Your task to perform on an android device: Do I have any events today? Image 0: 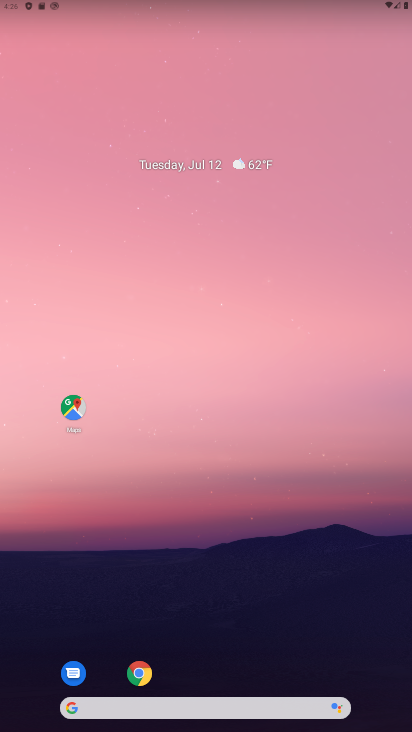
Step 0: drag from (208, 542) to (208, 217)
Your task to perform on an android device: Do I have any events today? Image 1: 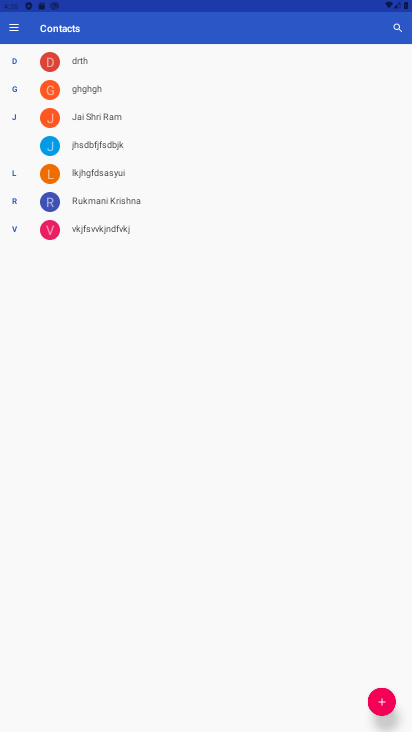
Step 1: press home button
Your task to perform on an android device: Do I have any events today? Image 2: 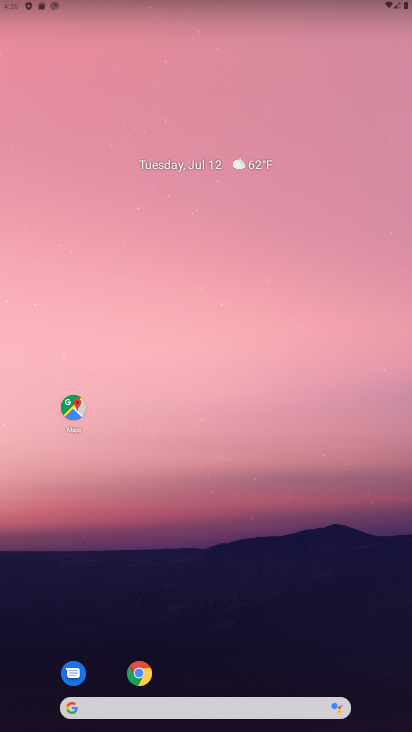
Step 2: drag from (226, 710) to (238, 203)
Your task to perform on an android device: Do I have any events today? Image 3: 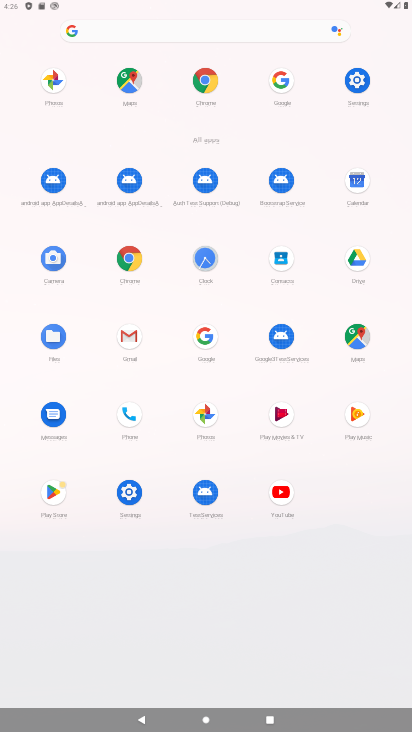
Step 3: click (360, 179)
Your task to perform on an android device: Do I have any events today? Image 4: 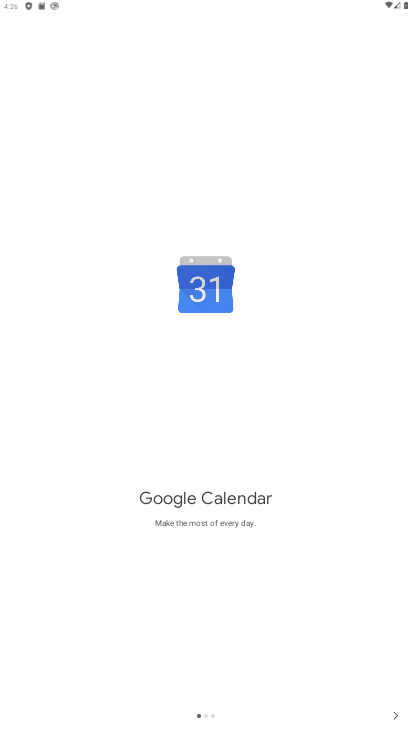
Step 4: click (397, 710)
Your task to perform on an android device: Do I have any events today? Image 5: 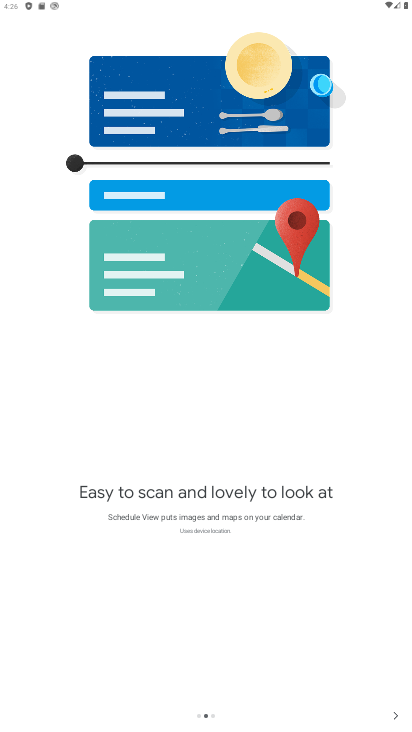
Step 5: click (391, 714)
Your task to perform on an android device: Do I have any events today? Image 6: 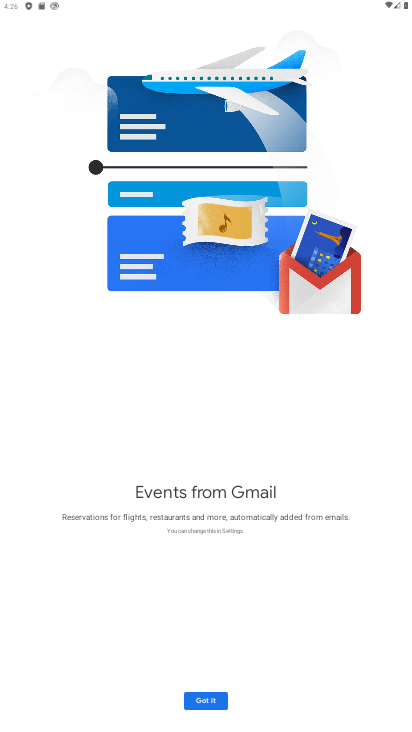
Step 6: click (212, 698)
Your task to perform on an android device: Do I have any events today? Image 7: 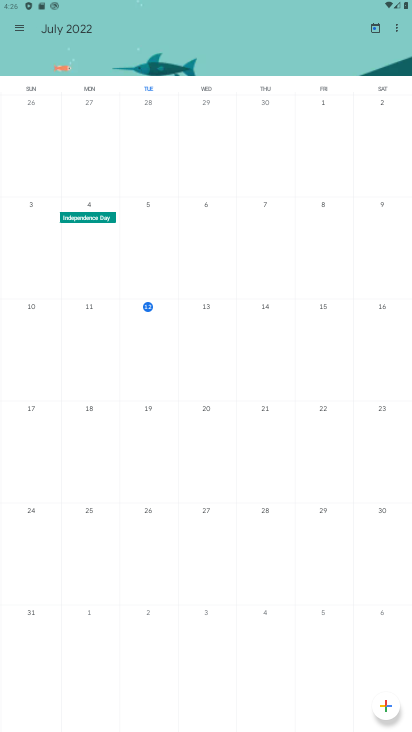
Step 7: click (17, 29)
Your task to perform on an android device: Do I have any events today? Image 8: 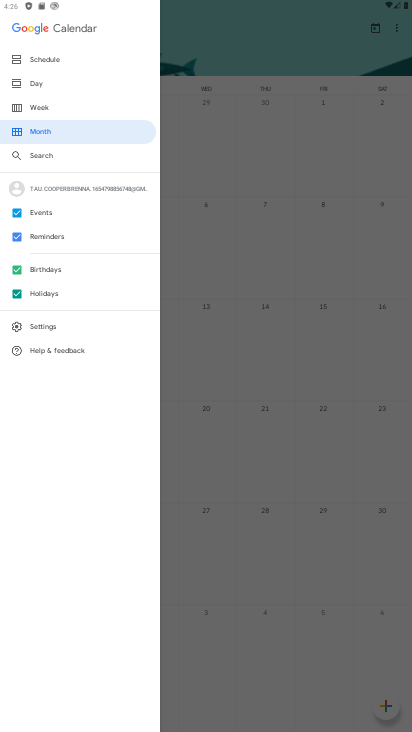
Step 8: click (19, 293)
Your task to perform on an android device: Do I have any events today? Image 9: 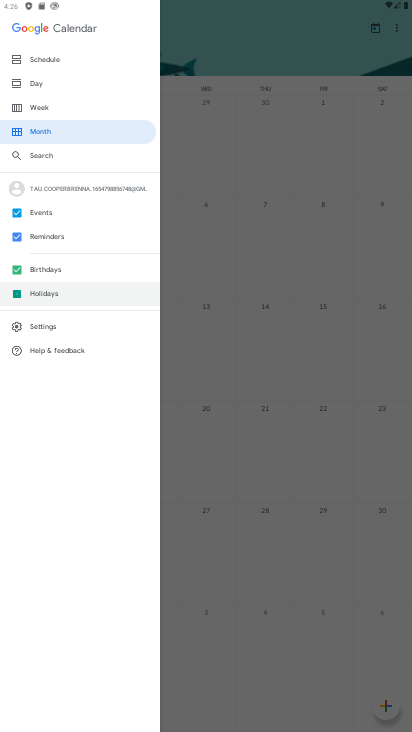
Step 9: click (17, 267)
Your task to perform on an android device: Do I have any events today? Image 10: 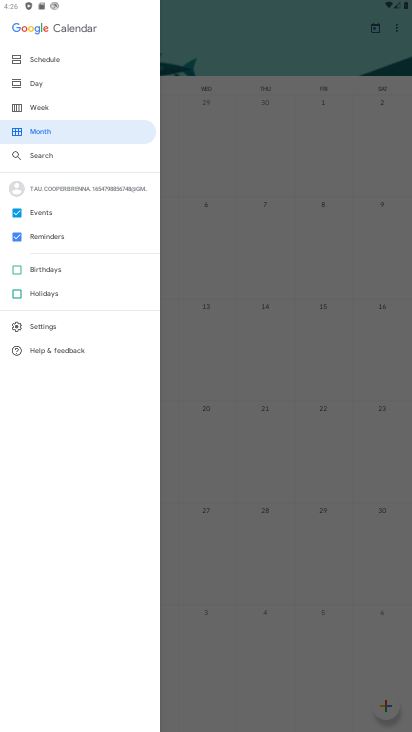
Step 10: click (17, 237)
Your task to perform on an android device: Do I have any events today? Image 11: 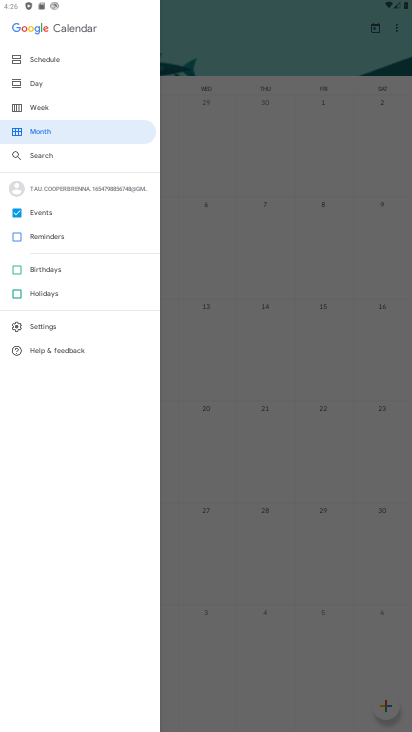
Step 11: click (36, 80)
Your task to perform on an android device: Do I have any events today? Image 12: 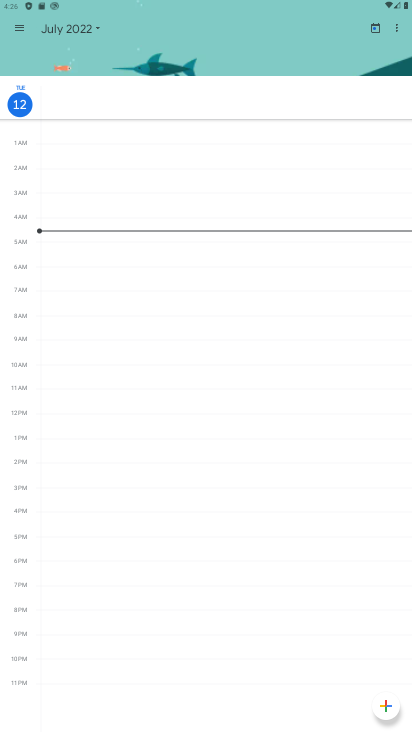
Step 12: click (18, 101)
Your task to perform on an android device: Do I have any events today? Image 13: 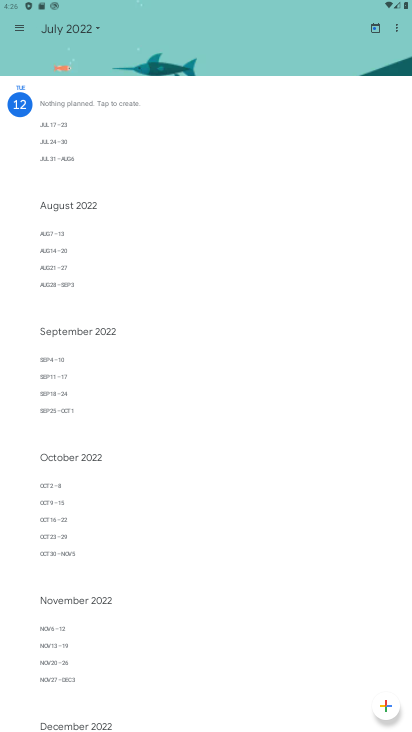
Step 13: task complete